Your task to perform on an android device: What's on my calendar today? Image 0: 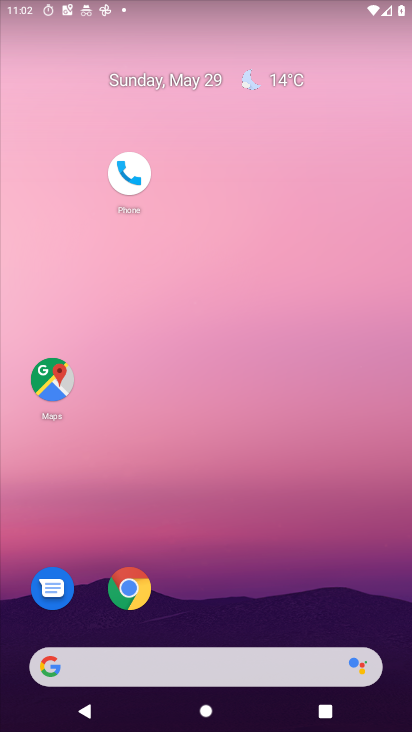
Step 0: drag from (216, 467) to (147, 176)
Your task to perform on an android device: What's on my calendar today? Image 1: 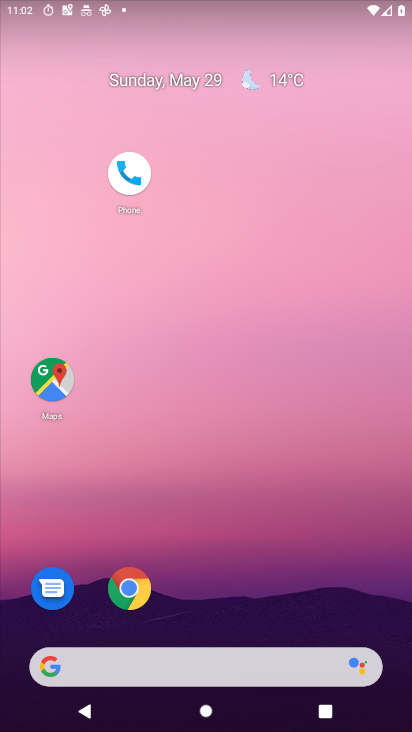
Step 1: drag from (253, 575) to (219, 120)
Your task to perform on an android device: What's on my calendar today? Image 2: 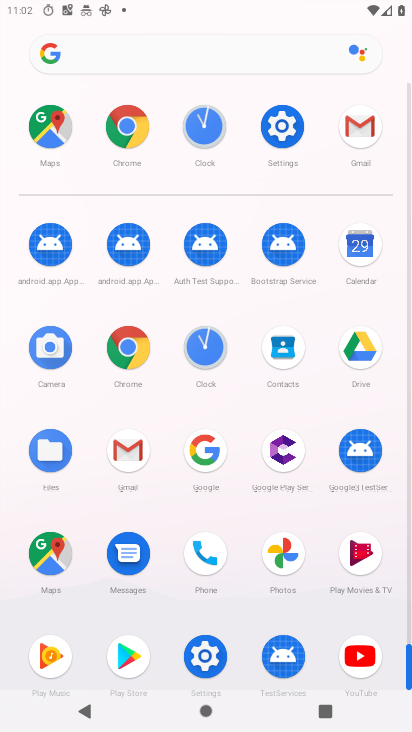
Step 2: click (358, 252)
Your task to perform on an android device: What's on my calendar today? Image 3: 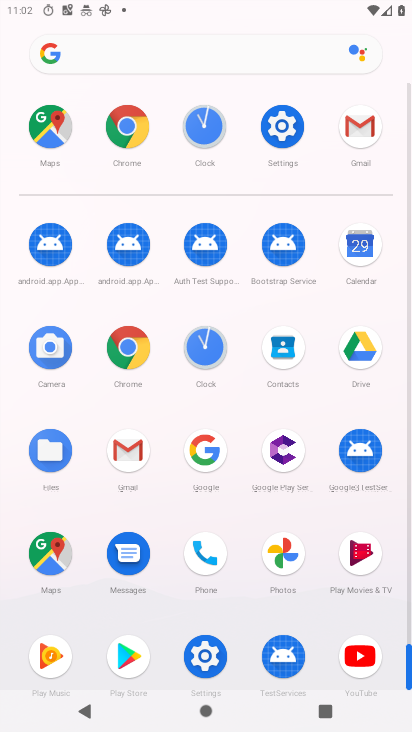
Step 3: click (359, 251)
Your task to perform on an android device: What's on my calendar today? Image 4: 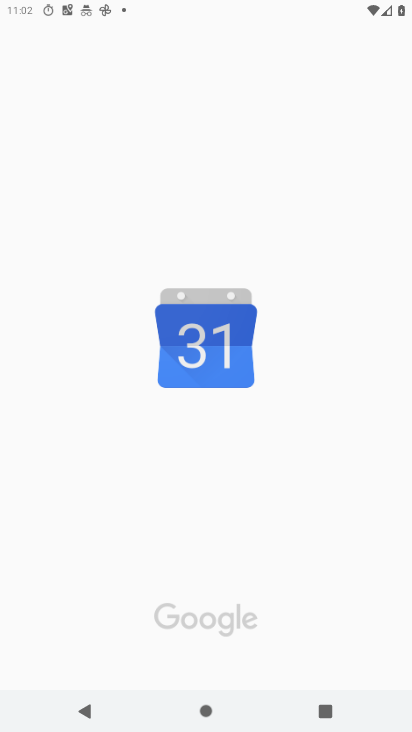
Step 4: click (348, 244)
Your task to perform on an android device: What's on my calendar today? Image 5: 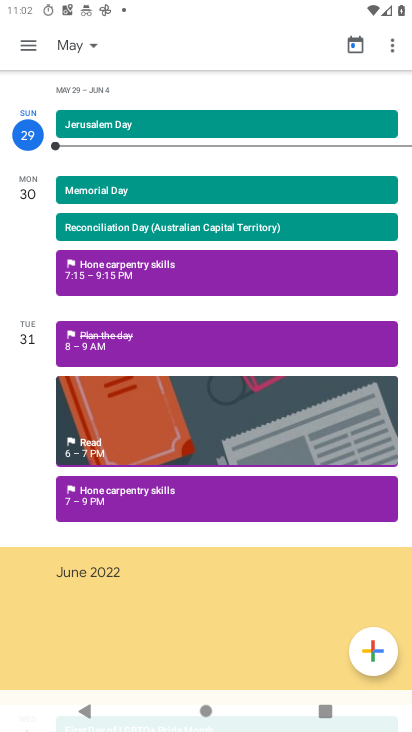
Step 5: click (90, 48)
Your task to perform on an android device: What's on my calendar today? Image 6: 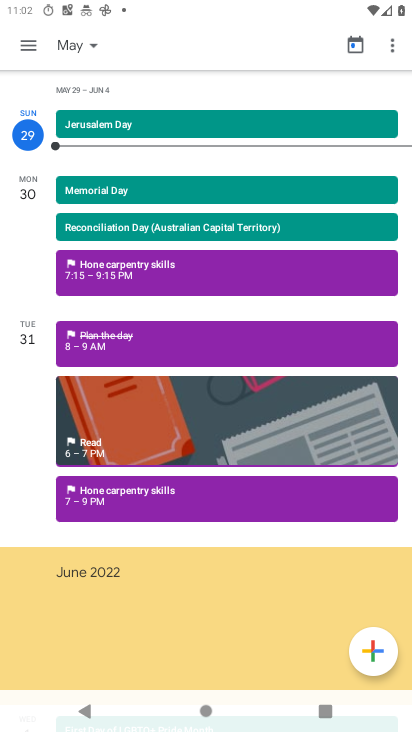
Step 6: click (90, 48)
Your task to perform on an android device: What's on my calendar today? Image 7: 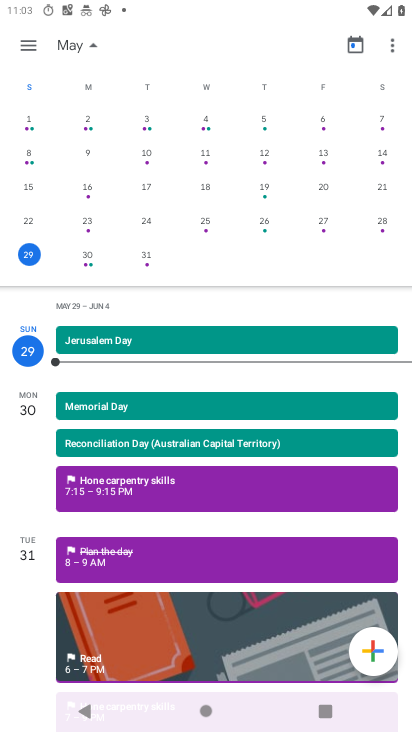
Step 7: click (82, 258)
Your task to perform on an android device: What's on my calendar today? Image 8: 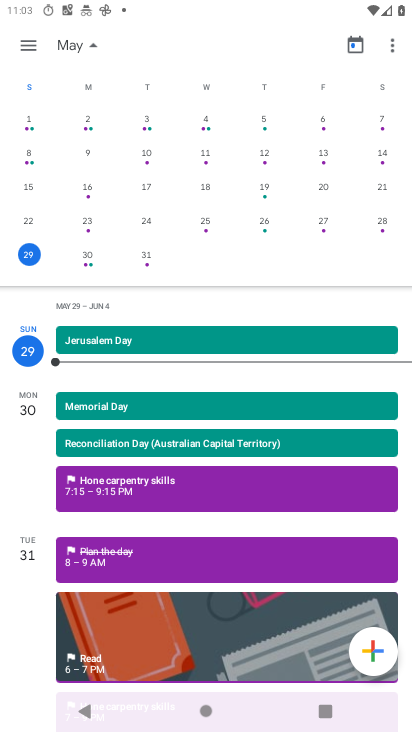
Step 8: click (90, 256)
Your task to perform on an android device: What's on my calendar today? Image 9: 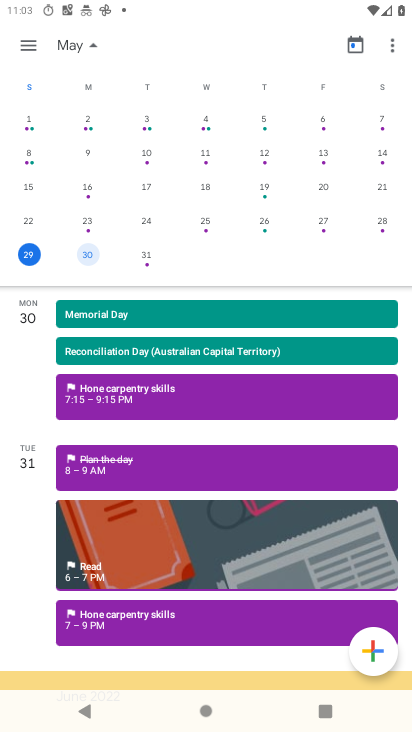
Step 9: click (79, 250)
Your task to perform on an android device: What's on my calendar today? Image 10: 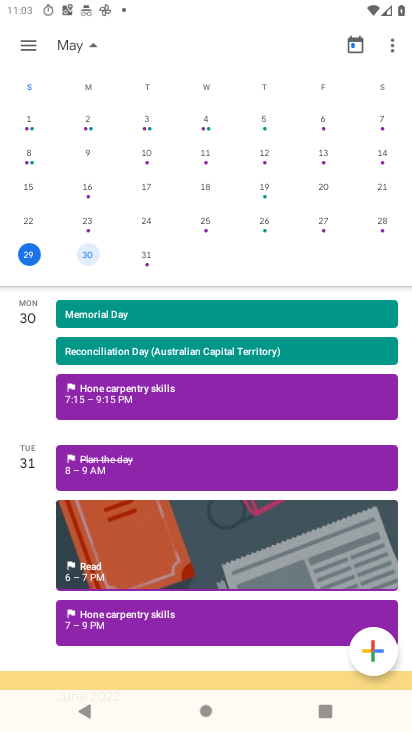
Step 10: click (80, 251)
Your task to perform on an android device: What's on my calendar today? Image 11: 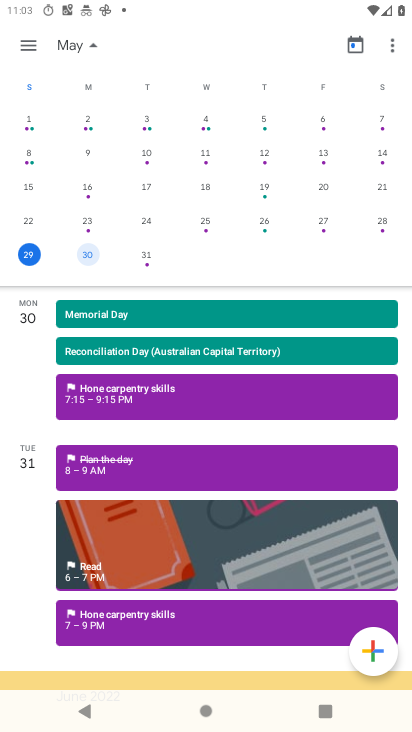
Step 11: click (80, 251)
Your task to perform on an android device: What's on my calendar today? Image 12: 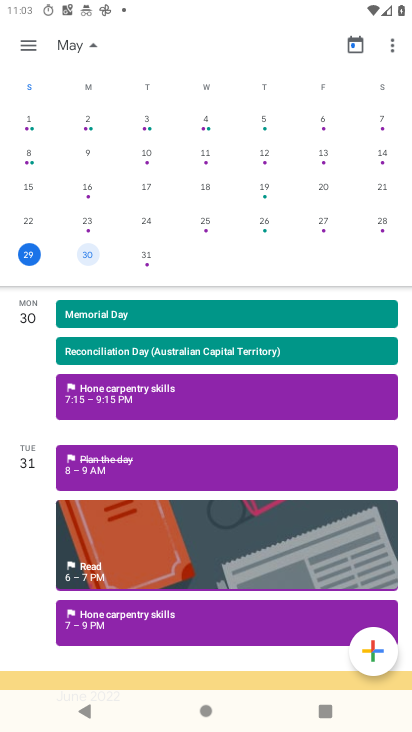
Step 12: click (82, 251)
Your task to perform on an android device: What's on my calendar today? Image 13: 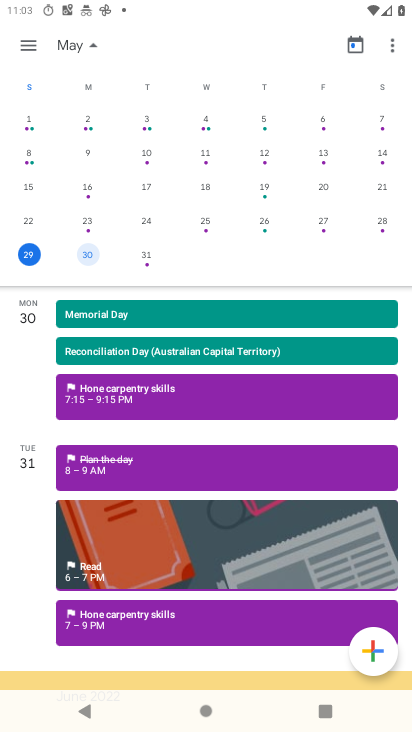
Step 13: click (86, 249)
Your task to perform on an android device: What's on my calendar today? Image 14: 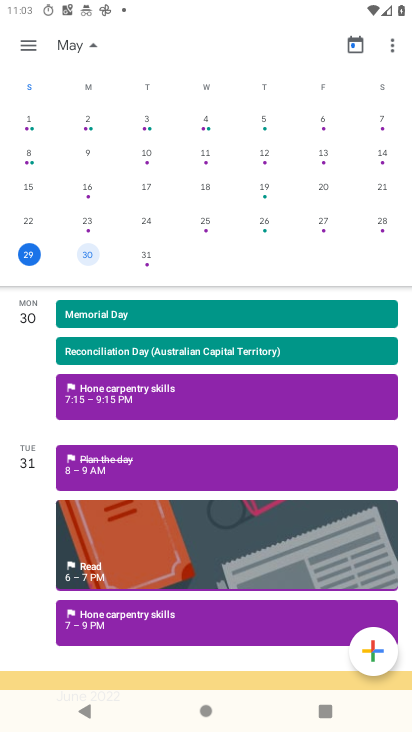
Step 14: task complete